Your task to perform on an android device: turn off translation in the chrome app Image 0: 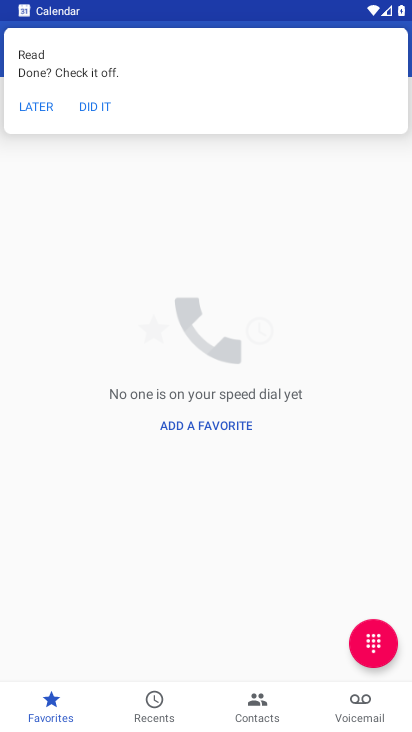
Step 0: press home button
Your task to perform on an android device: turn off translation in the chrome app Image 1: 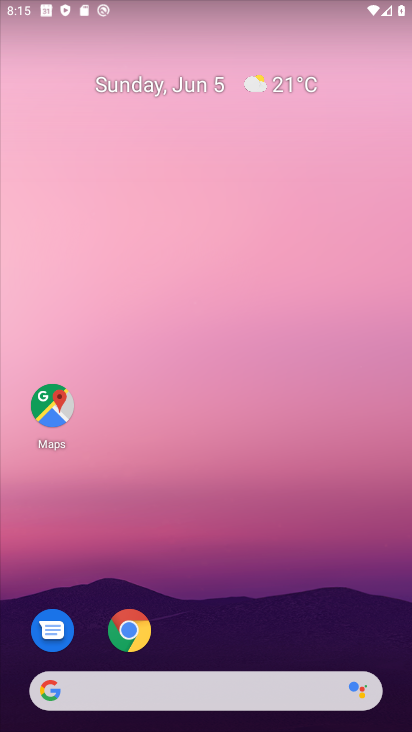
Step 1: click (123, 633)
Your task to perform on an android device: turn off translation in the chrome app Image 2: 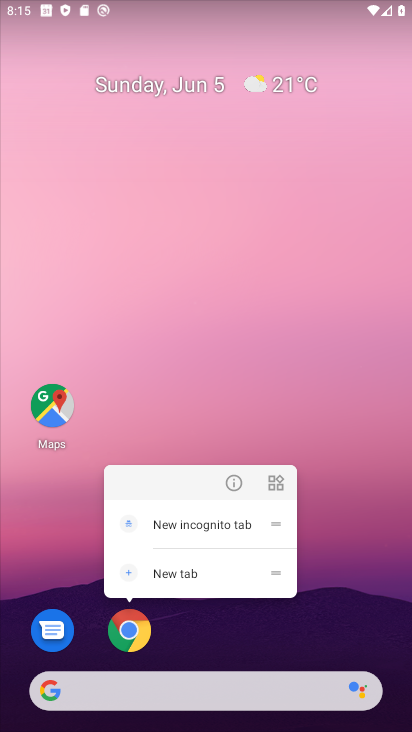
Step 2: click (128, 627)
Your task to perform on an android device: turn off translation in the chrome app Image 3: 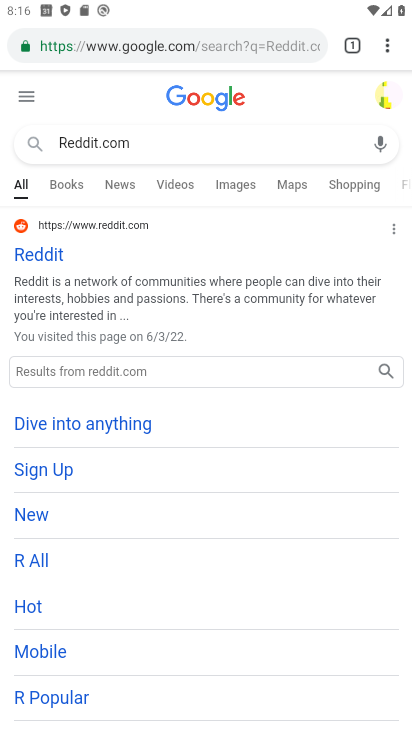
Step 3: click (391, 44)
Your task to perform on an android device: turn off translation in the chrome app Image 4: 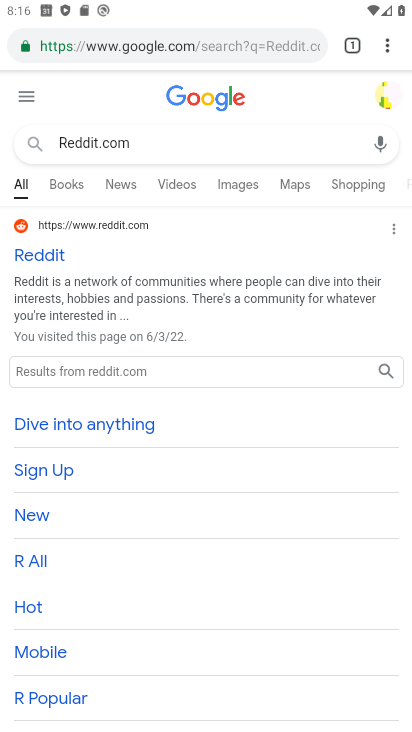
Step 4: click (390, 44)
Your task to perform on an android device: turn off translation in the chrome app Image 5: 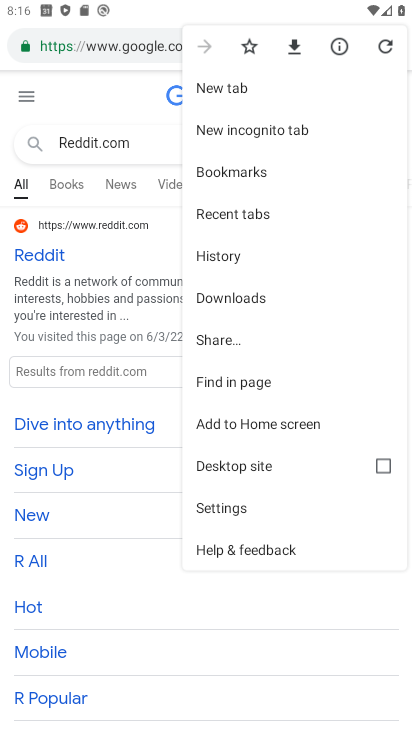
Step 5: click (197, 502)
Your task to perform on an android device: turn off translation in the chrome app Image 6: 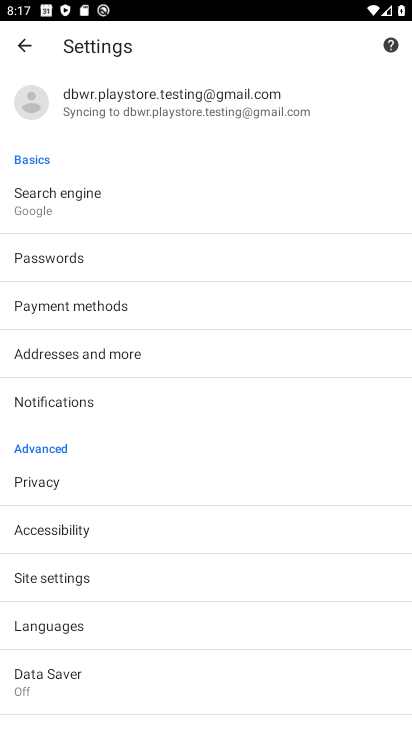
Step 6: click (68, 636)
Your task to perform on an android device: turn off translation in the chrome app Image 7: 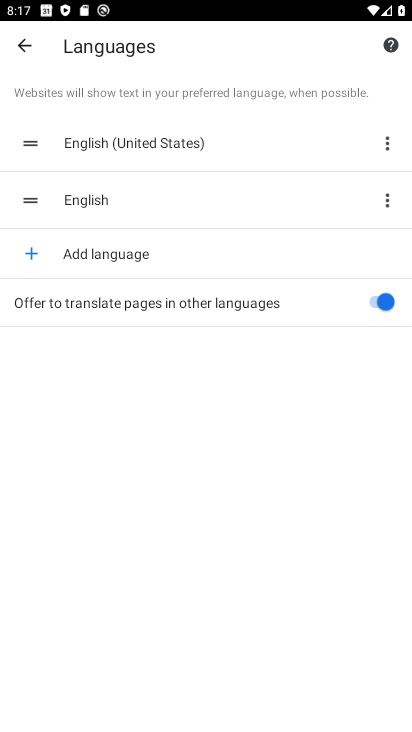
Step 7: click (370, 304)
Your task to perform on an android device: turn off translation in the chrome app Image 8: 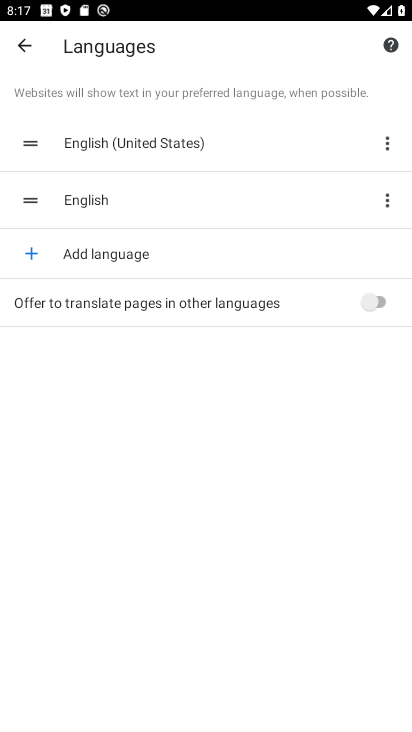
Step 8: task complete